Your task to perform on an android device: Open Google Maps Image 0: 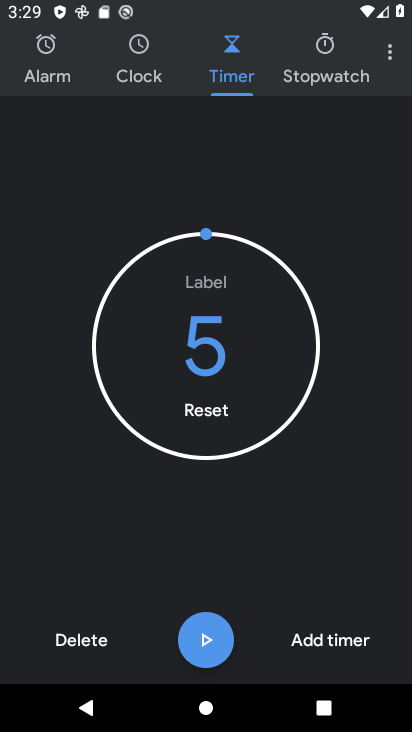
Step 0: press home button
Your task to perform on an android device: Open Google Maps Image 1: 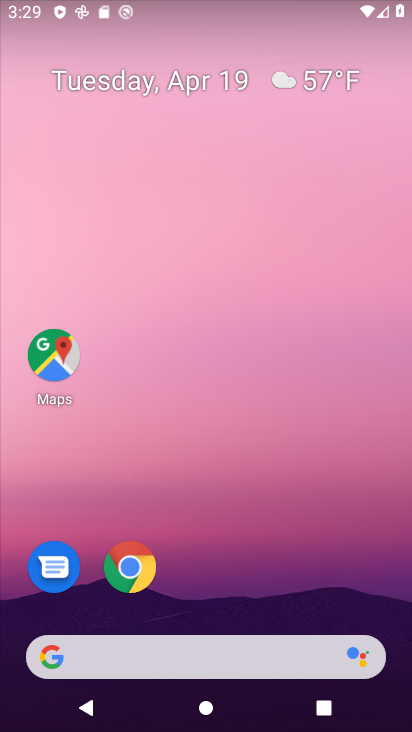
Step 1: drag from (361, 589) to (355, 136)
Your task to perform on an android device: Open Google Maps Image 2: 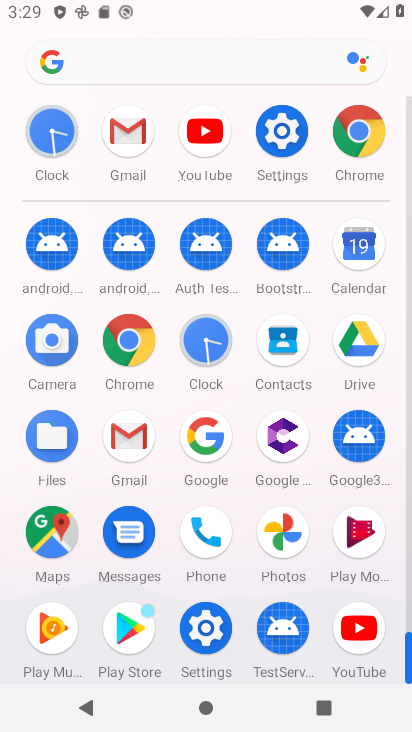
Step 2: click (45, 540)
Your task to perform on an android device: Open Google Maps Image 3: 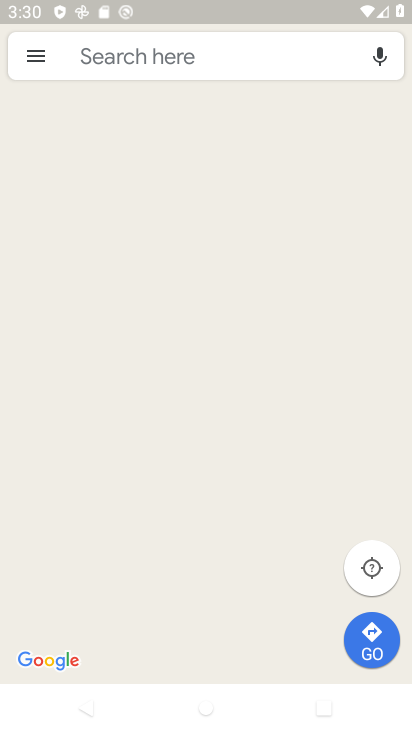
Step 3: task complete